Your task to perform on an android device: What's on my calendar today? Image 0: 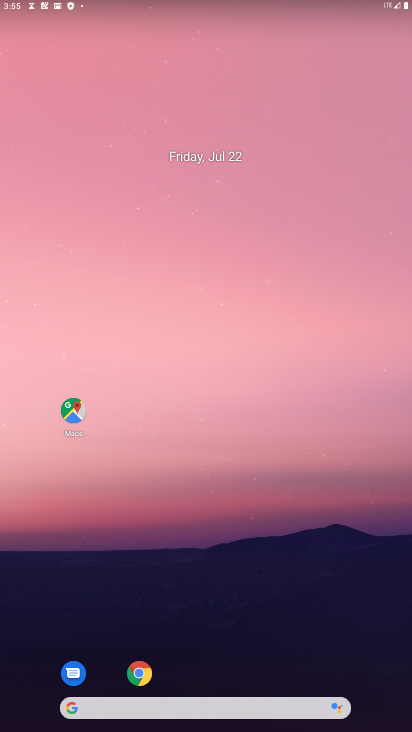
Step 0: drag from (233, 583) to (251, 14)
Your task to perform on an android device: What's on my calendar today? Image 1: 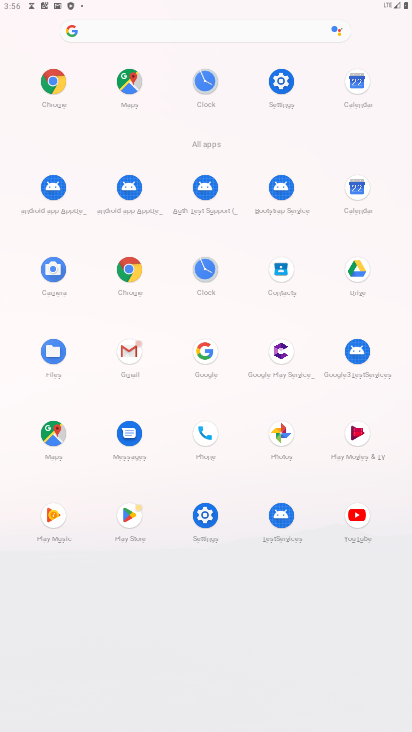
Step 1: click (359, 196)
Your task to perform on an android device: What's on my calendar today? Image 2: 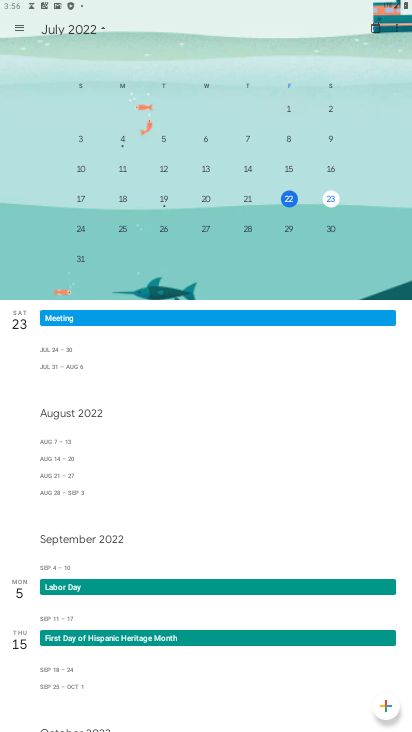
Step 2: click (291, 199)
Your task to perform on an android device: What's on my calendar today? Image 3: 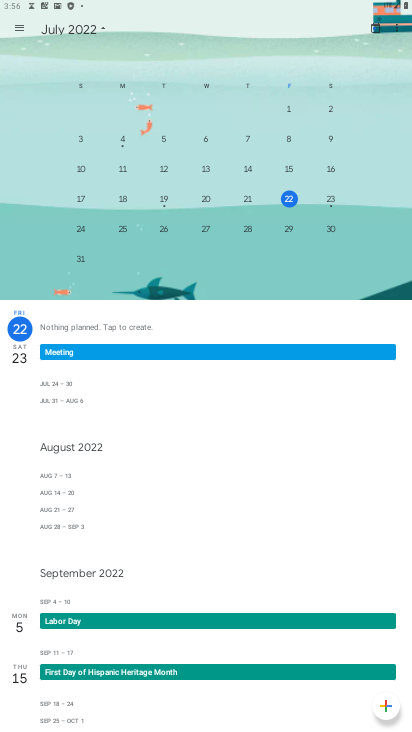
Step 3: task complete